Your task to perform on an android device: turn pop-ups on in chrome Image 0: 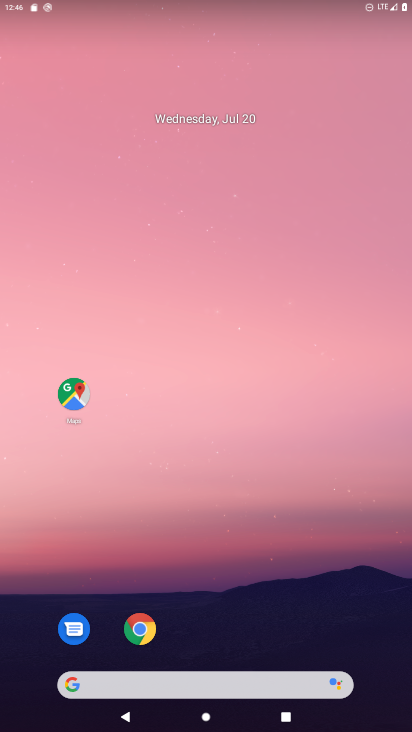
Step 0: click (145, 627)
Your task to perform on an android device: turn pop-ups on in chrome Image 1: 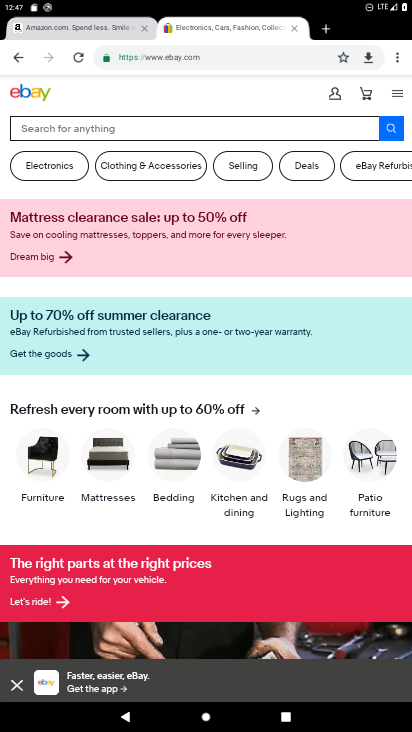
Step 1: click (400, 58)
Your task to perform on an android device: turn pop-ups on in chrome Image 2: 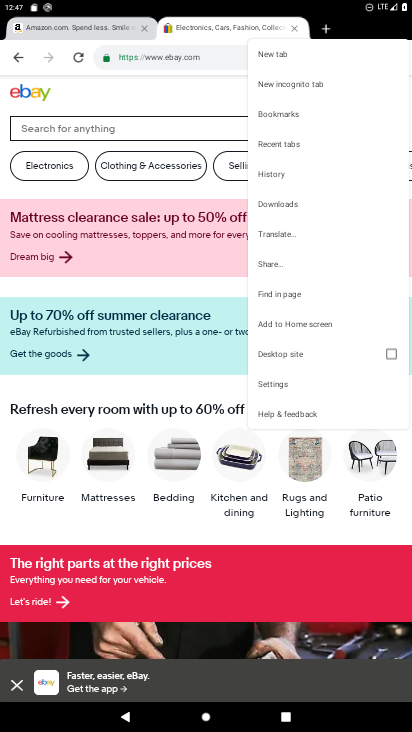
Step 2: click (274, 383)
Your task to perform on an android device: turn pop-ups on in chrome Image 3: 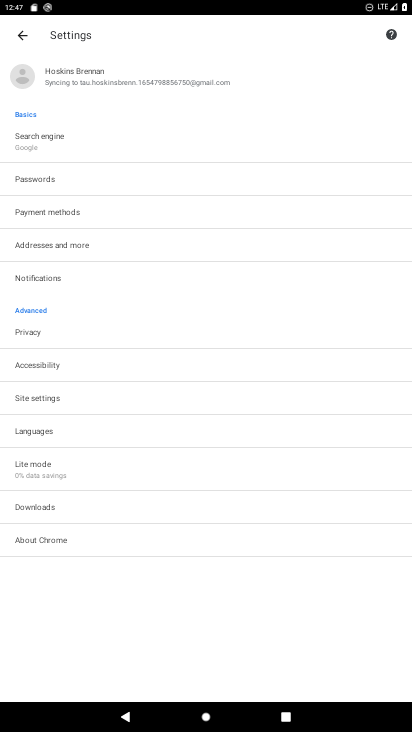
Step 3: click (33, 392)
Your task to perform on an android device: turn pop-ups on in chrome Image 4: 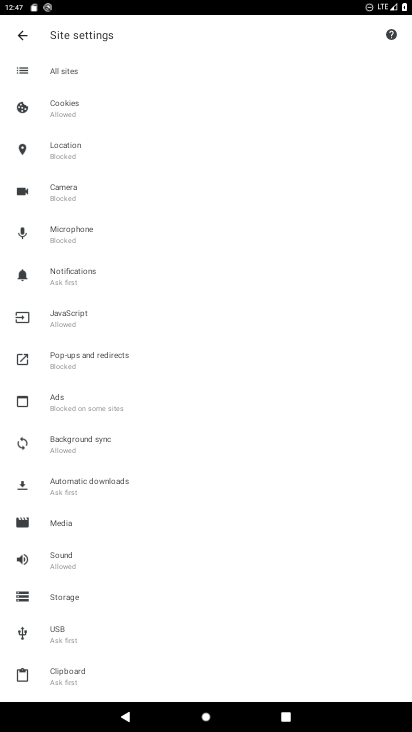
Step 4: click (69, 359)
Your task to perform on an android device: turn pop-ups on in chrome Image 5: 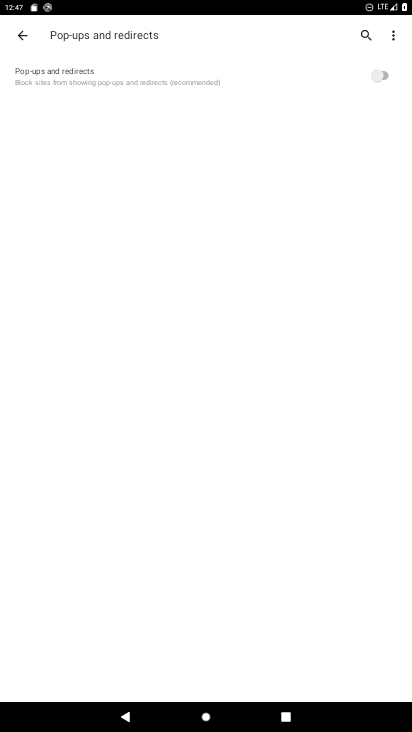
Step 5: click (383, 72)
Your task to perform on an android device: turn pop-ups on in chrome Image 6: 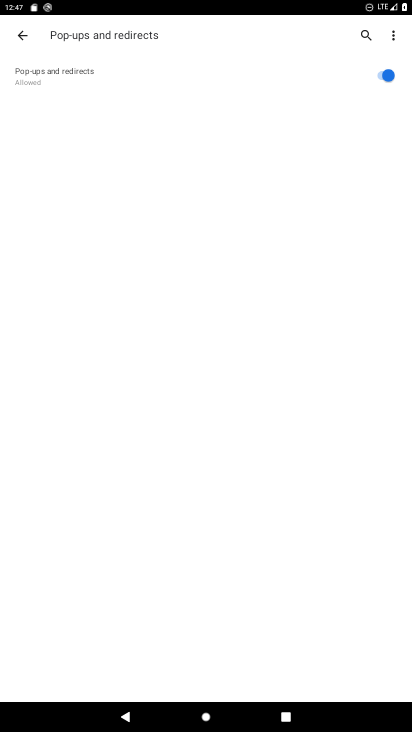
Step 6: task complete